Your task to perform on an android device: Open the phone app and click the voicemail tab. Image 0: 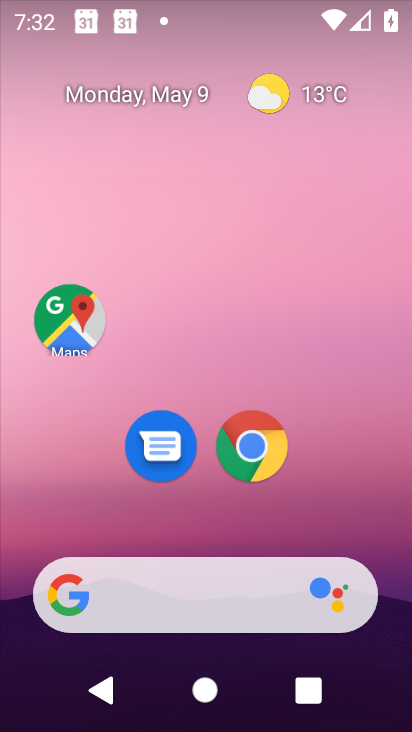
Step 0: drag from (306, 482) to (288, 123)
Your task to perform on an android device: Open the phone app and click the voicemail tab. Image 1: 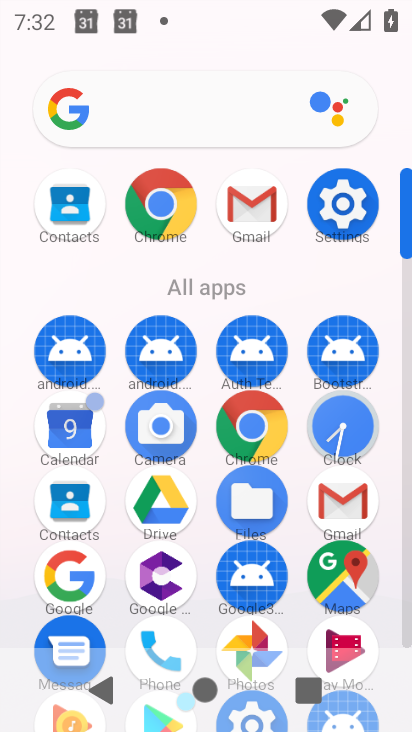
Step 1: click (158, 632)
Your task to perform on an android device: Open the phone app and click the voicemail tab. Image 2: 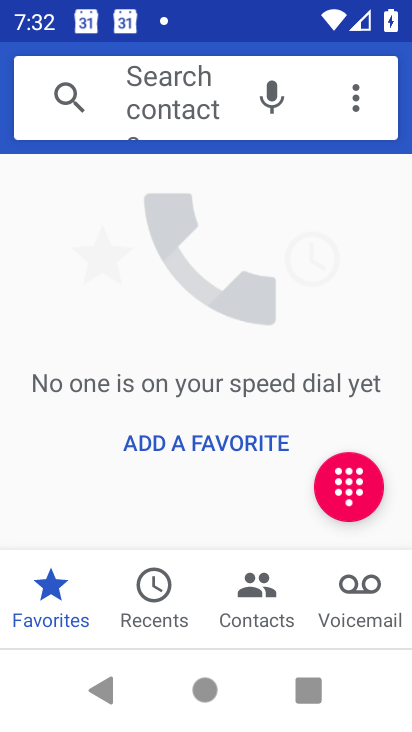
Step 2: click (370, 581)
Your task to perform on an android device: Open the phone app and click the voicemail tab. Image 3: 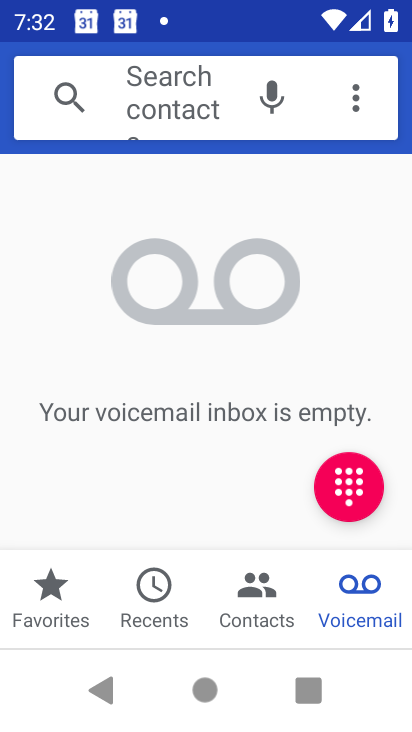
Step 3: task complete